Your task to perform on an android device: read, delete, or share a saved page in the chrome app Image 0: 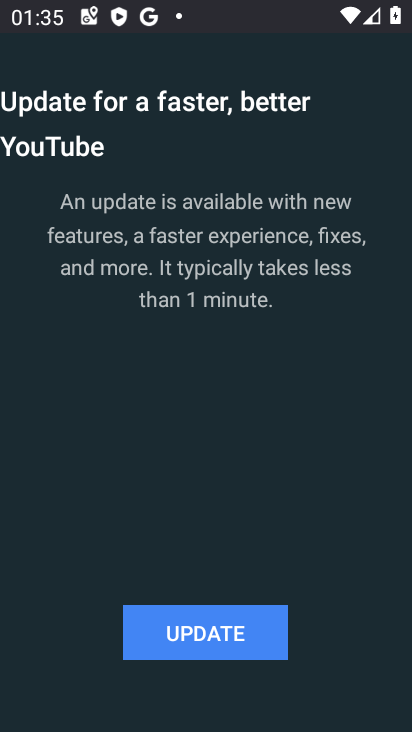
Step 0: press home button
Your task to perform on an android device: read, delete, or share a saved page in the chrome app Image 1: 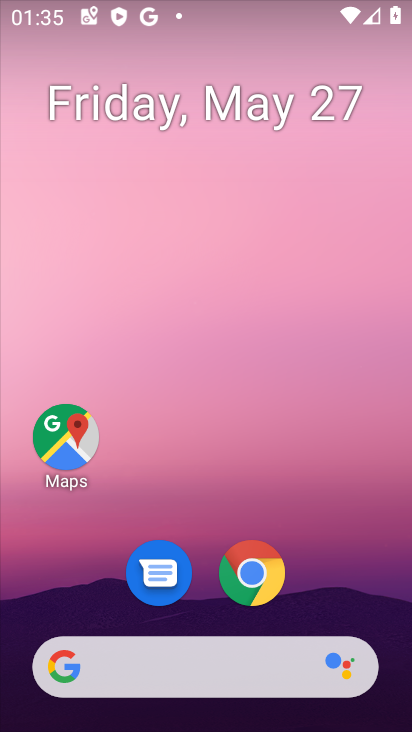
Step 1: drag from (199, 633) to (121, 17)
Your task to perform on an android device: read, delete, or share a saved page in the chrome app Image 2: 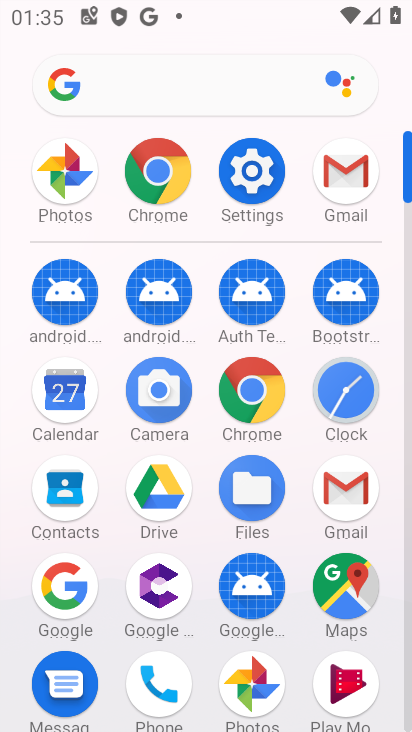
Step 2: click (166, 186)
Your task to perform on an android device: read, delete, or share a saved page in the chrome app Image 3: 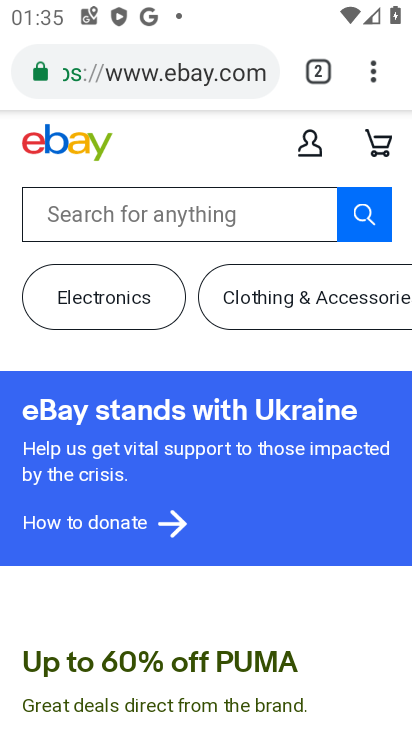
Step 3: click (379, 83)
Your task to perform on an android device: read, delete, or share a saved page in the chrome app Image 4: 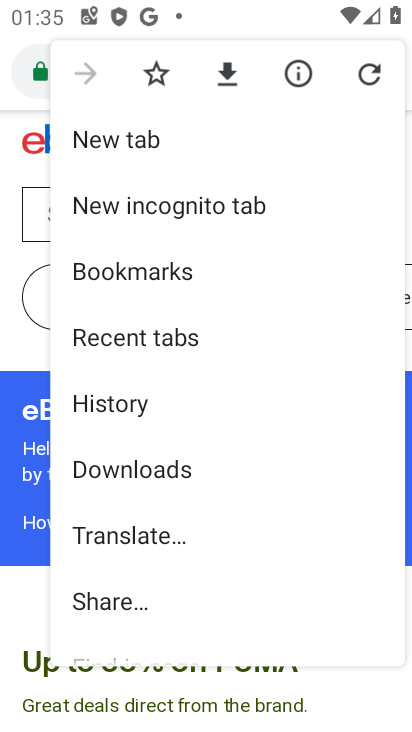
Step 4: drag from (159, 439) to (138, 128)
Your task to perform on an android device: read, delete, or share a saved page in the chrome app Image 5: 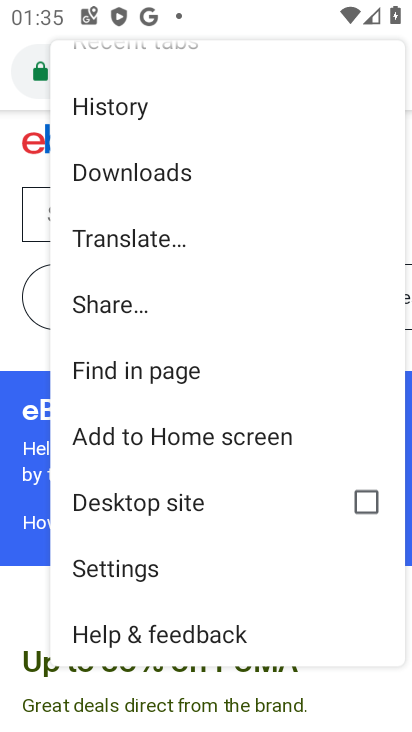
Step 5: click (143, 176)
Your task to perform on an android device: read, delete, or share a saved page in the chrome app Image 6: 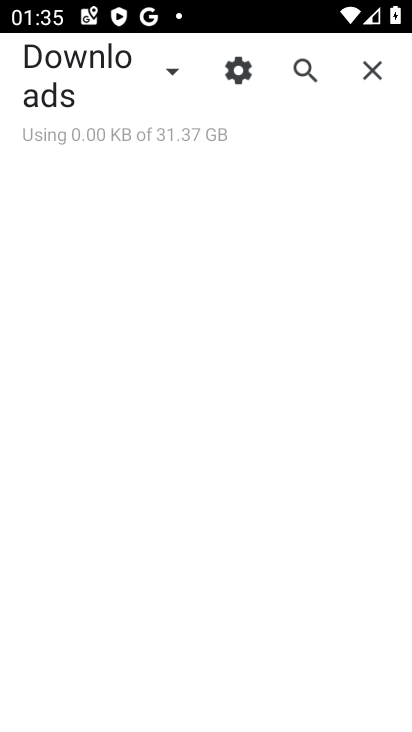
Step 6: task complete